Your task to perform on an android device: install app "McDonald's" Image 0: 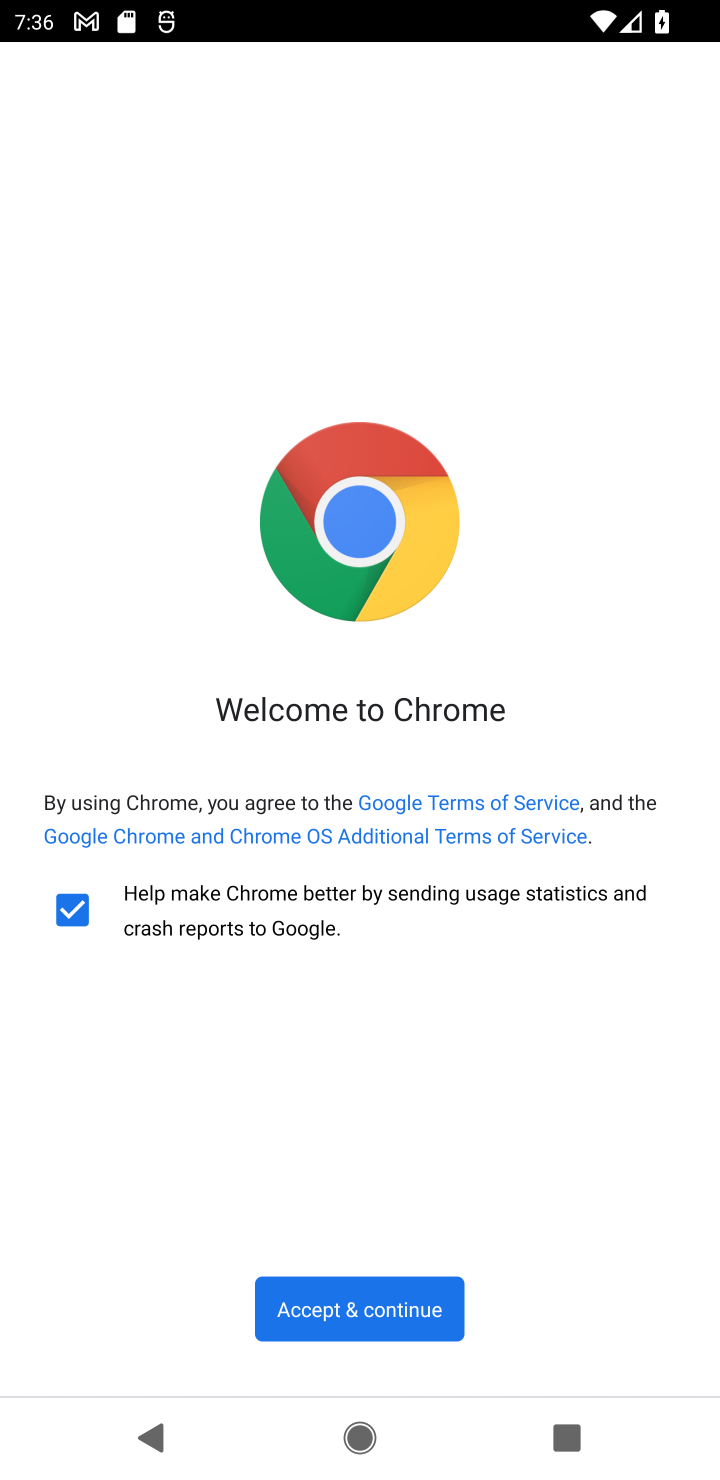
Step 0: press home button
Your task to perform on an android device: install app "McDonald's" Image 1: 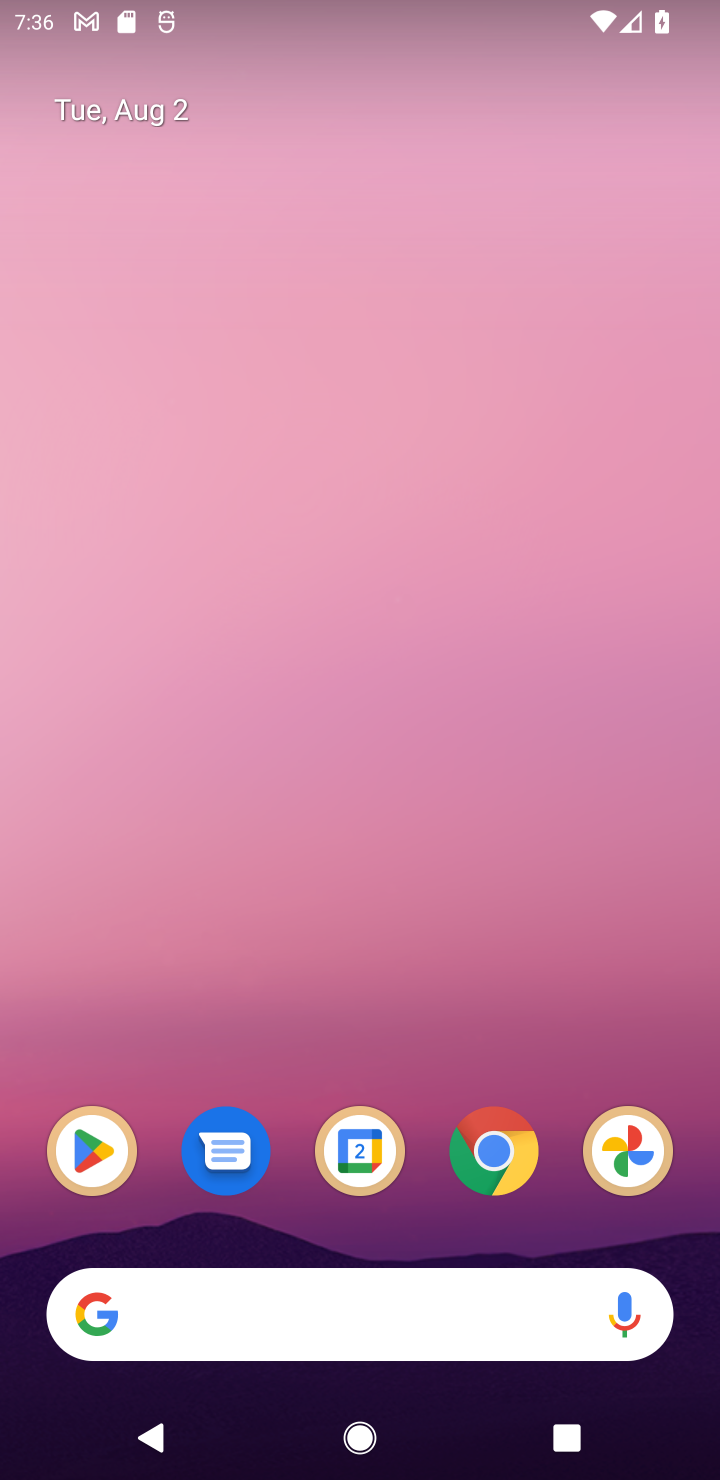
Step 1: click (102, 1135)
Your task to perform on an android device: install app "McDonald's" Image 2: 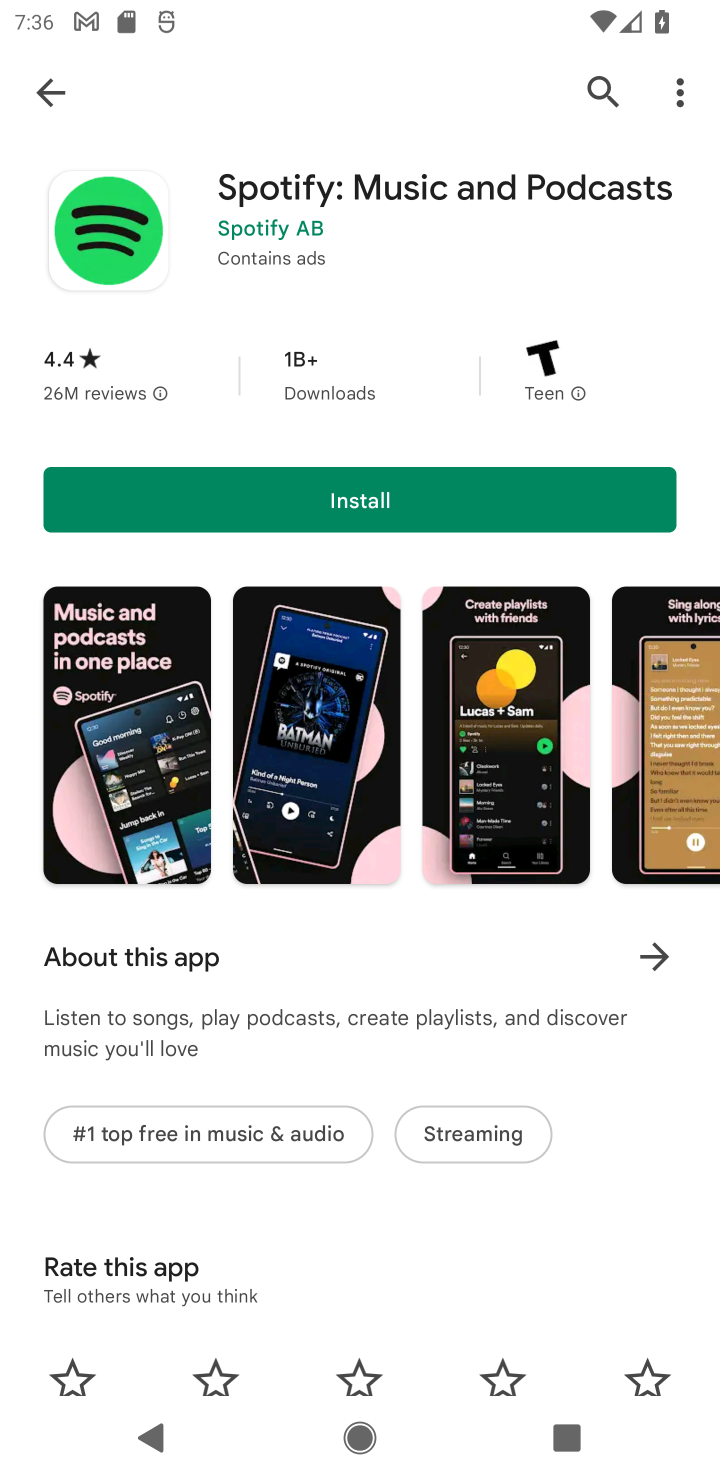
Step 2: click (58, 88)
Your task to perform on an android device: install app "McDonald's" Image 3: 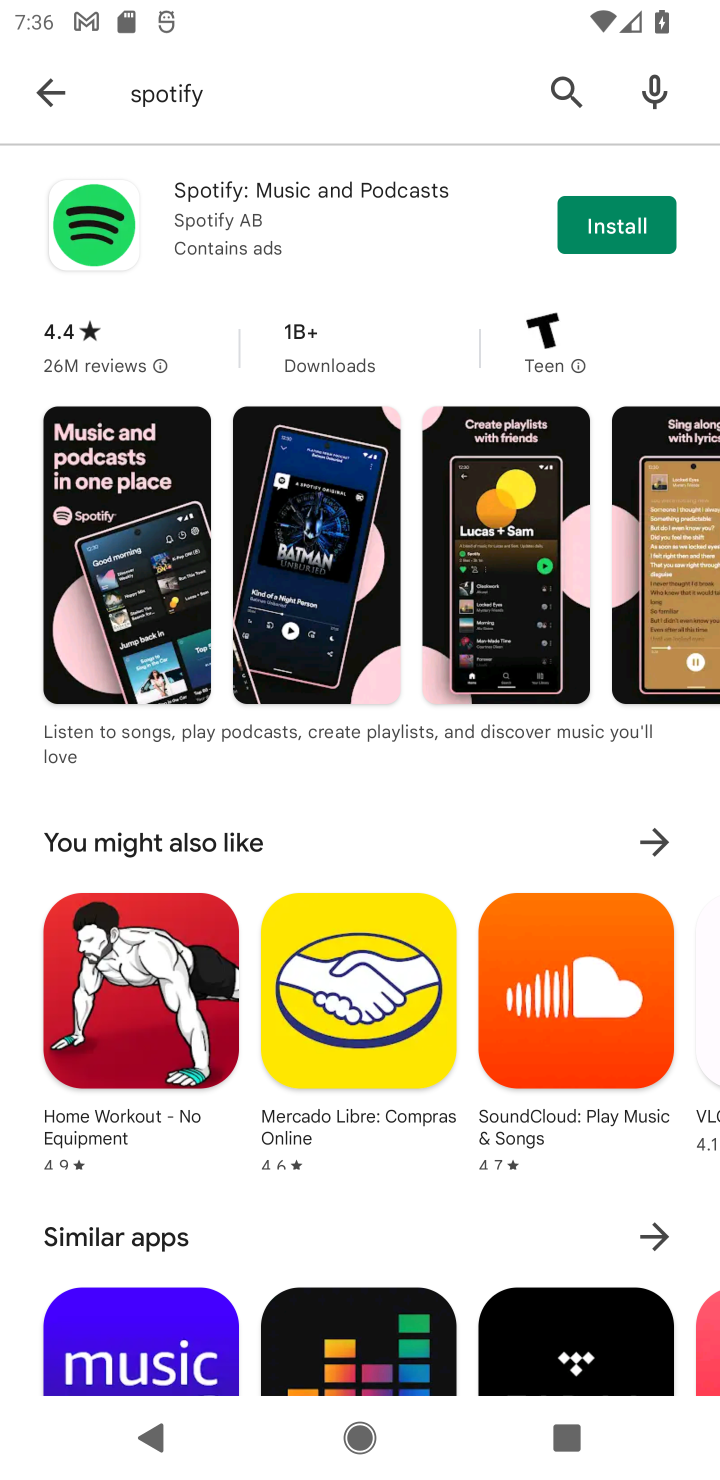
Step 3: click (164, 95)
Your task to perform on an android device: install app "McDonald's" Image 4: 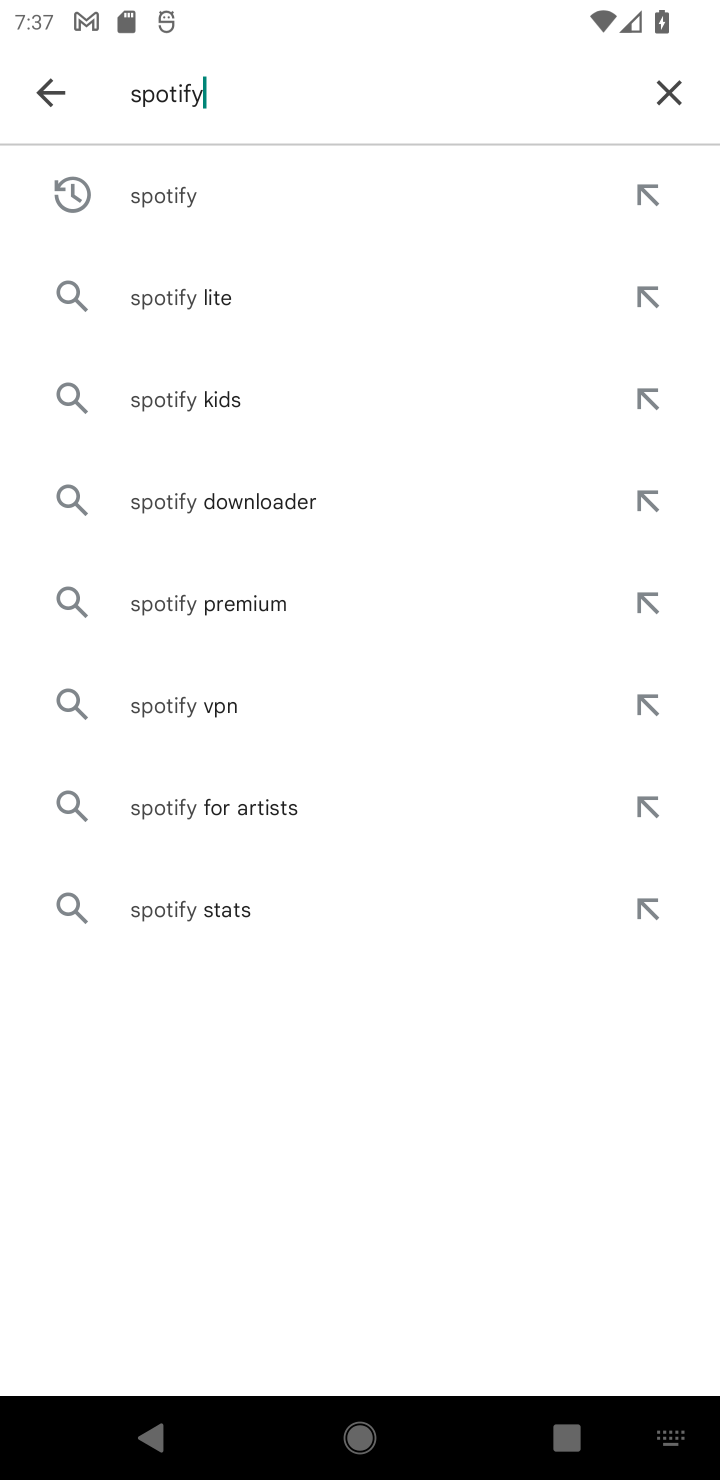
Step 4: click (664, 83)
Your task to perform on an android device: install app "McDonald's" Image 5: 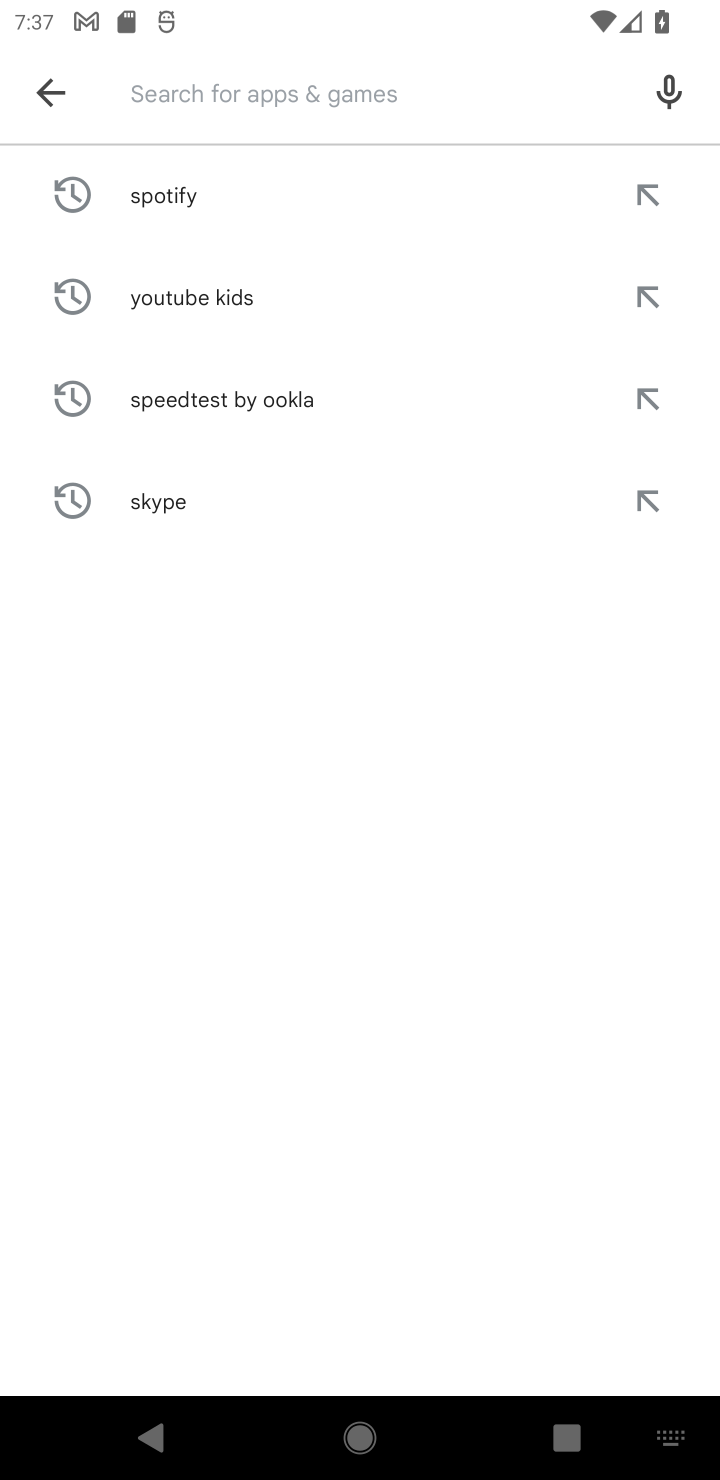
Step 5: type "McDonald's"
Your task to perform on an android device: install app "McDonald's" Image 6: 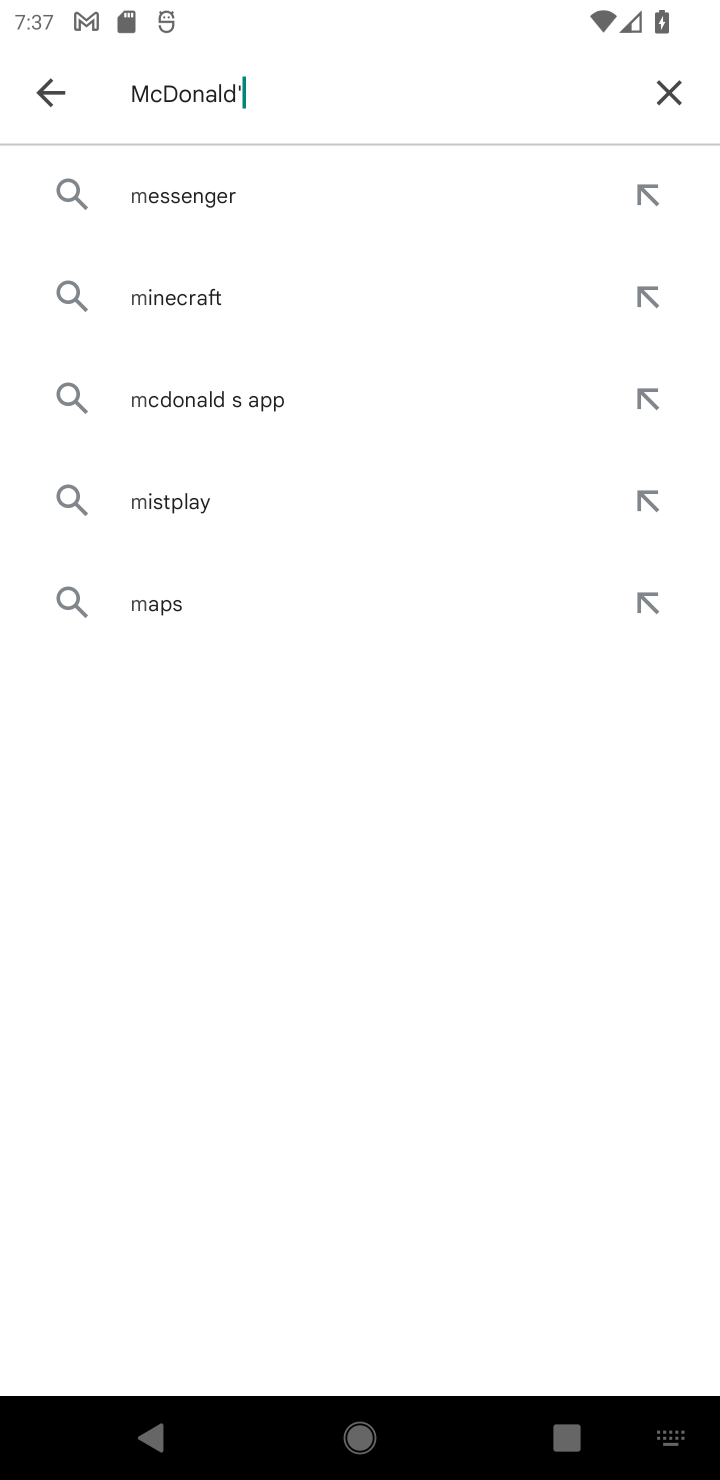
Step 6: type ""
Your task to perform on an android device: install app "McDonald's" Image 7: 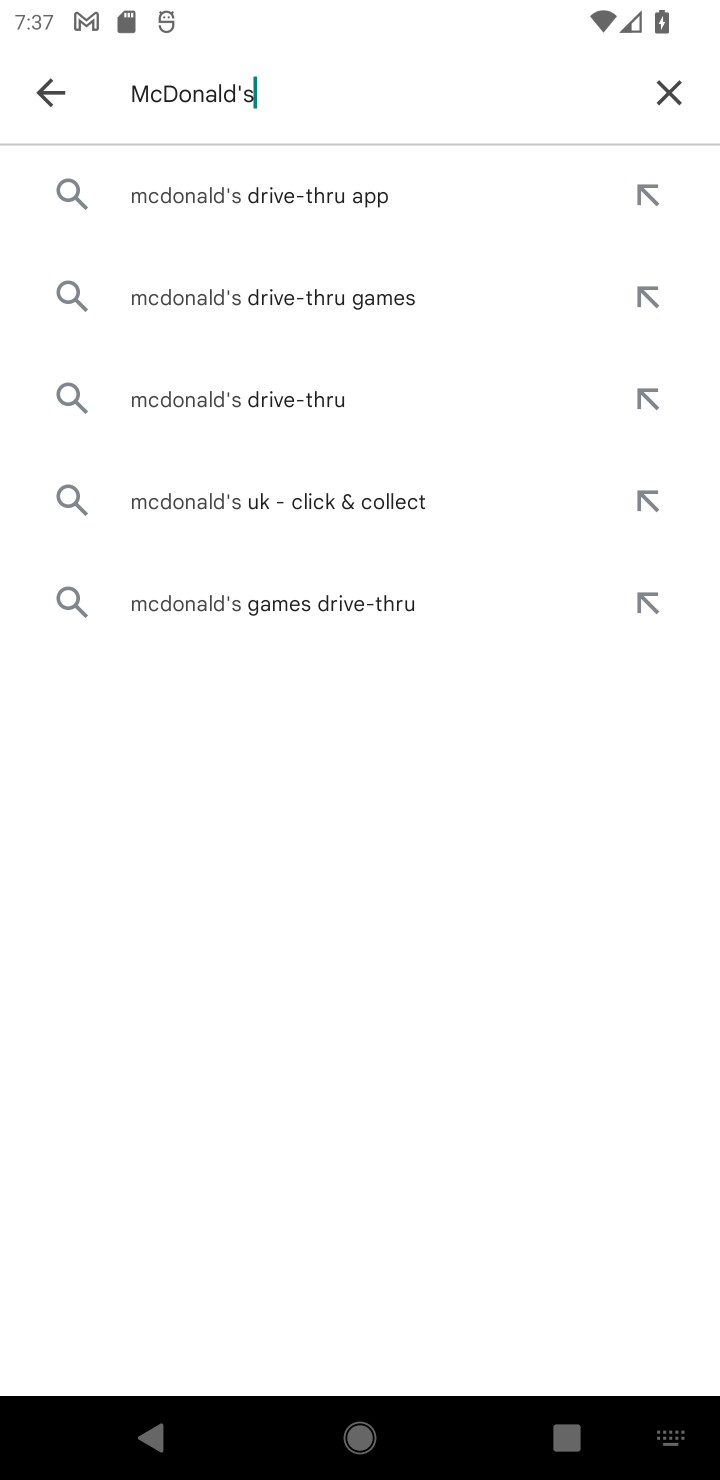
Step 7: click (77, 224)
Your task to perform on an android device: install app "McDonald's" Image 8: 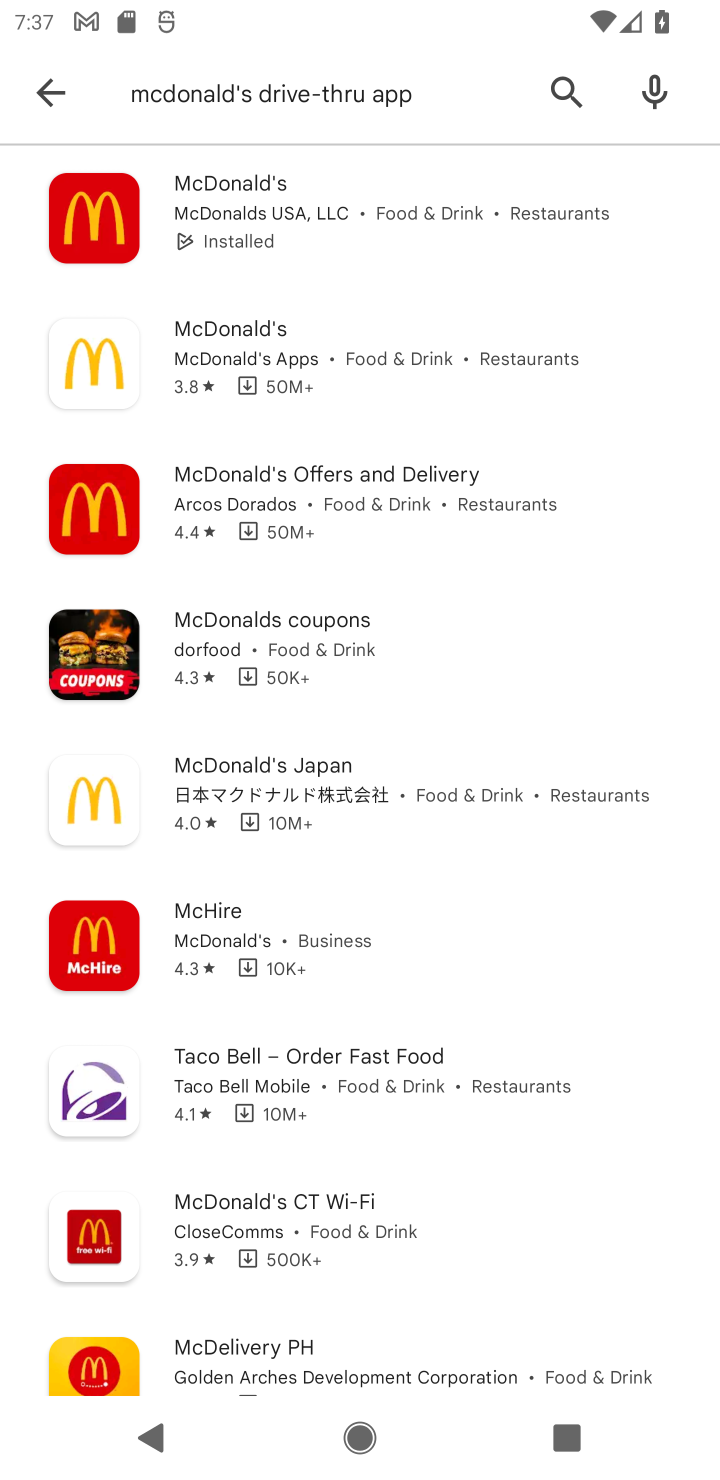
Step 8: click (77, 224)
Your task to perform on an android device: install app "McDonald's" Image 9: 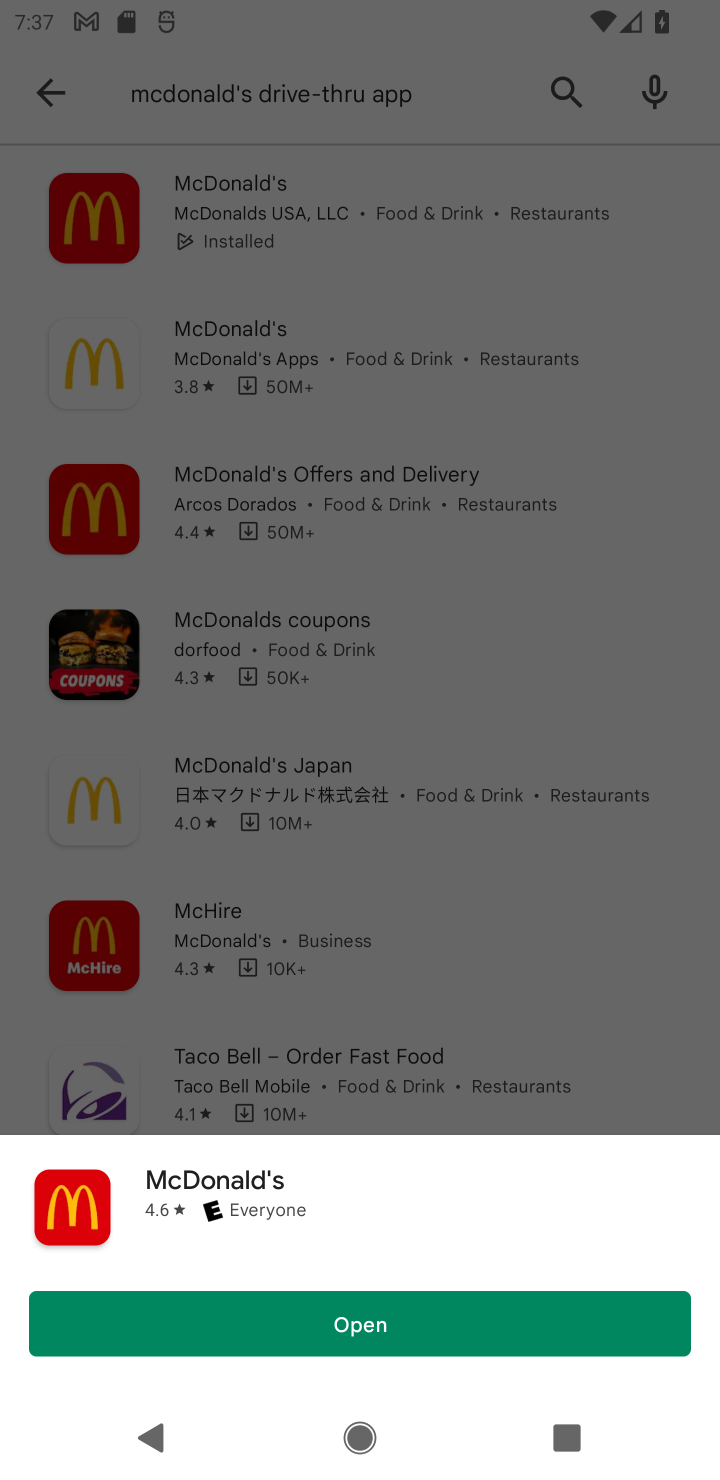
Step 9: click (269, 1330)
Your task to perform on an android device: install app "McDonald's" Image 10: 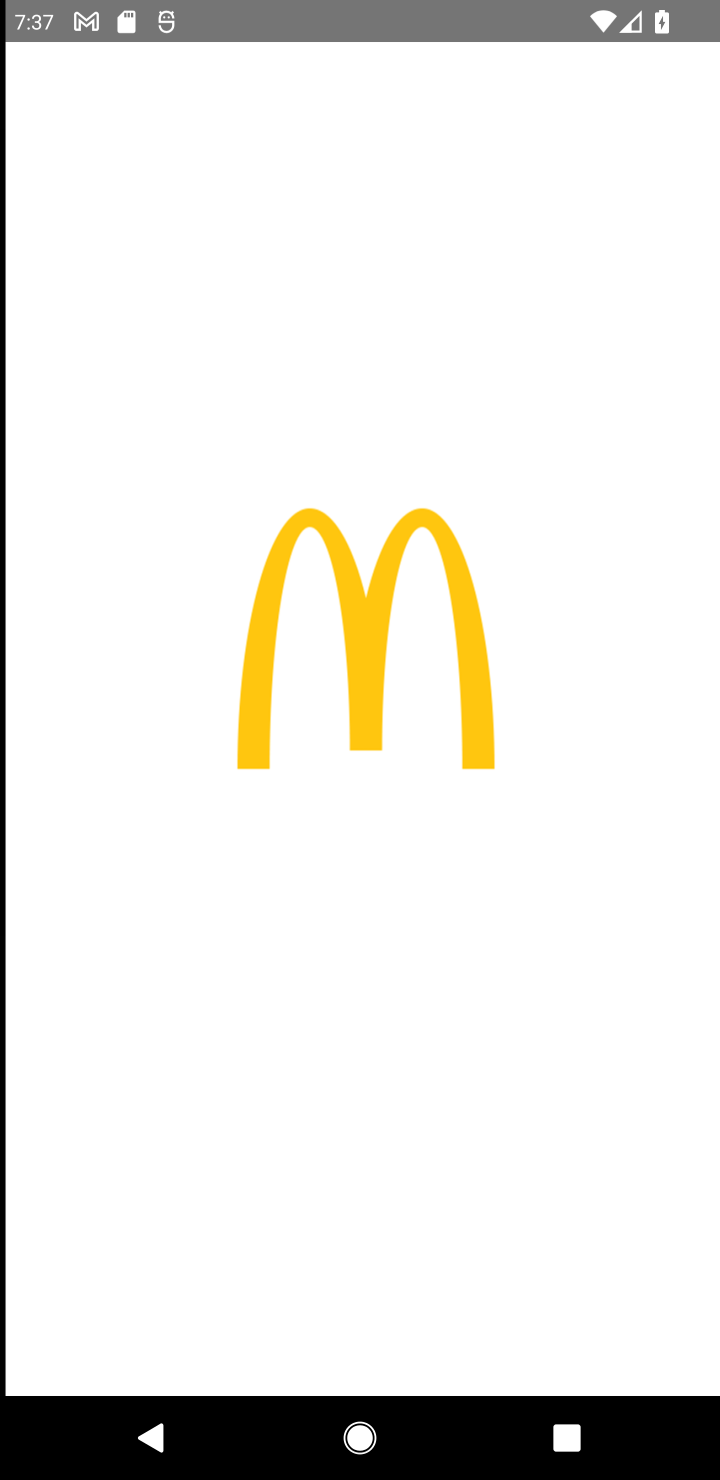
Step 10: task complete